Your task to perform on an android device: Open calendar and show me the fourth week of next month Image 0: 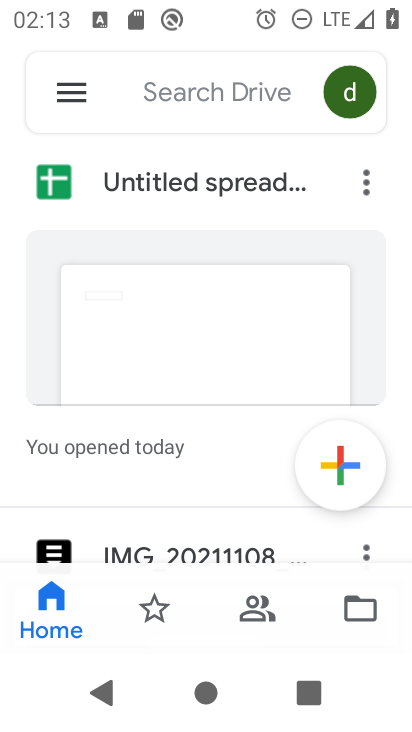
Step 0: press home button
Your task to perform on an android device: Open calendar and show me the fourth week of next month Image 1: 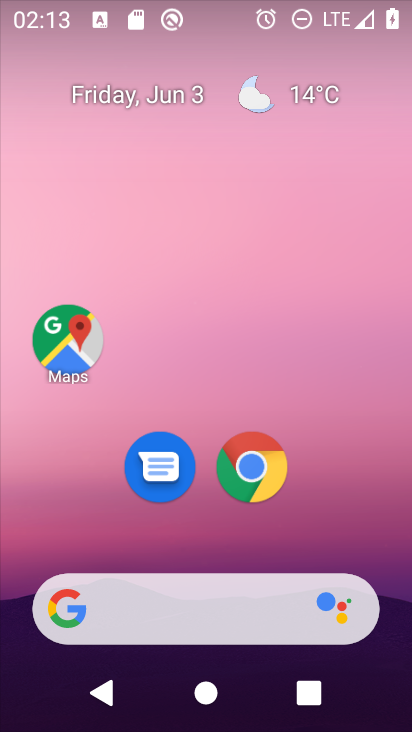
Step 1: drag from (407, 624) to (317, 79)
Your task to perform on an android device: Open calendar and show me the fourth week of next month Image 2: 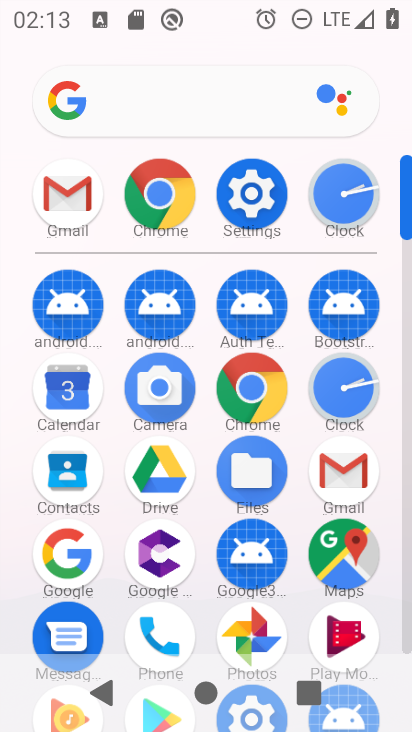
Step 2: click (408, 641)
Your task to perform on an android device: Open calendar and show me the fourth week of next month Image 3: 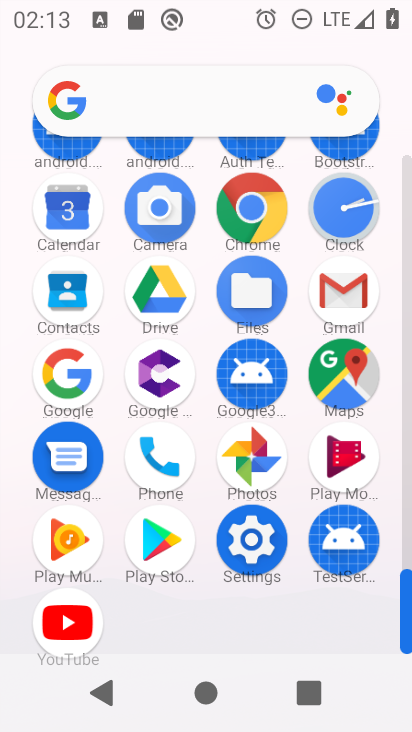
Step 3: click (68, 209)
Your task to perform on an android device: Open calendar and show me the fourth week of next month Image 4: 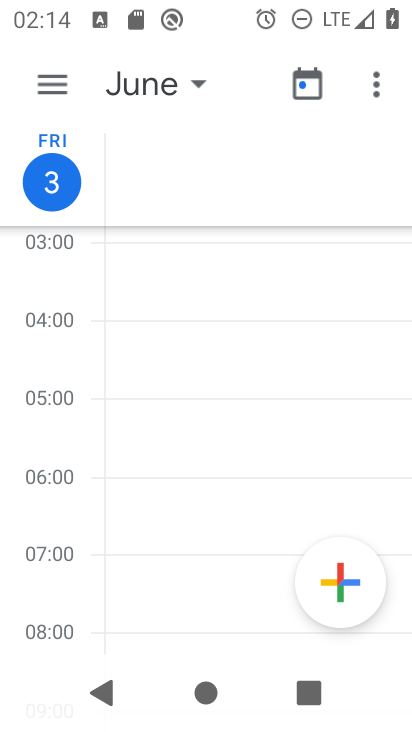
Step 4: click (40, 74)
Your task to perform on an android device: Open calendar and show me the fourth week of next month Image 5: 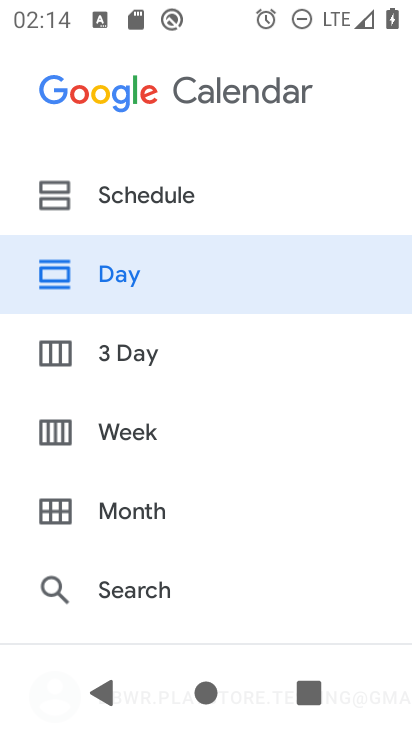
Step 5: click (131, 431)
Your task to perform on an android device: Open calendar and show me the fourth week of next month Image 6: 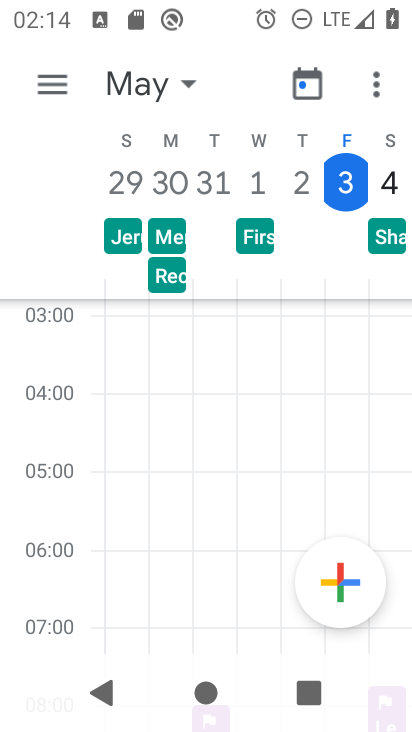
Step 6: click (192, 79)
Your task to perform on an android device: Open calendar and show me the fourth week of next month Image 7: 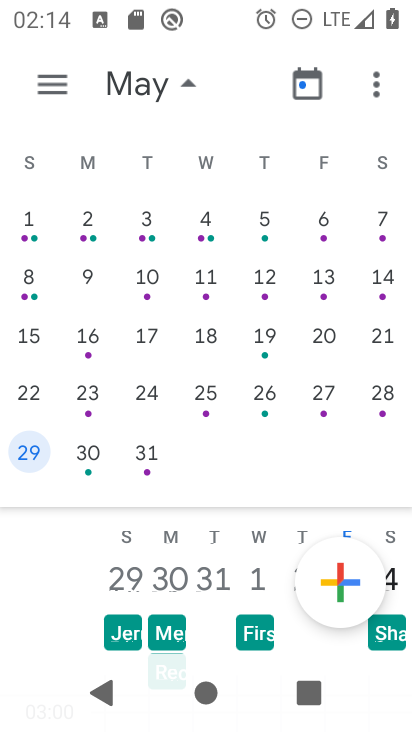
Step 7: drag from (389, 313) to (17, 313)
Your task to perform on an android device: Open calendar and show me the fourth week of next month Image 8: 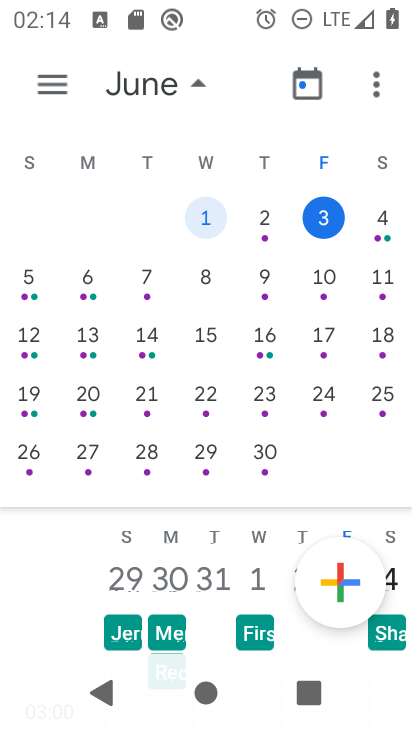
Step 8: drag from (389, 334) to (0, 337)
Your task to perform on an android device: Open calendar and show me the fourth week of next month Image 9: 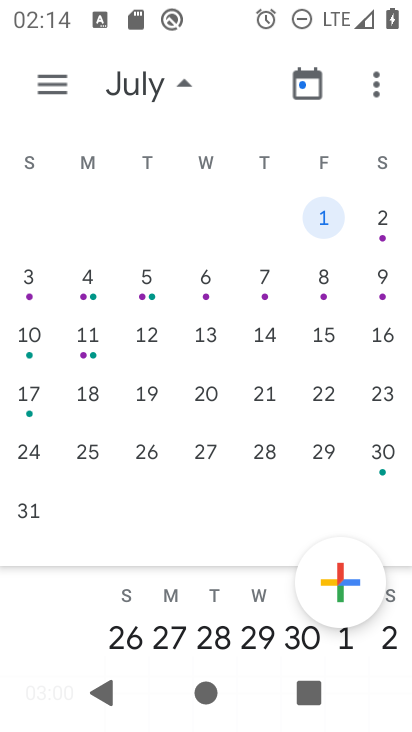
Step 9: click (34, 454)
Your task to perform on an android device: Open calendar and show me the fourth week of next month Image 10: 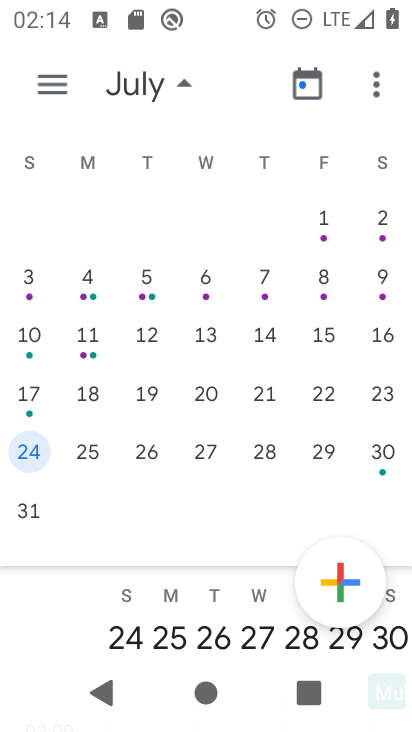
Step 10: task complete